Your task to perform on an android device: Open battery settings Image 0: 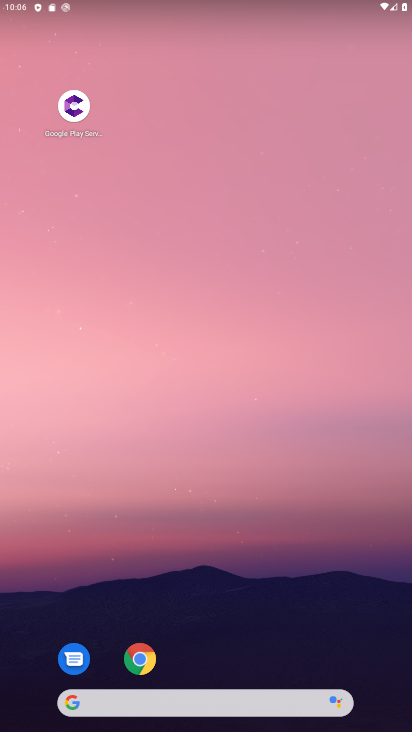
Step 0: drag from (222, 534) to (205, 95)
Your task to perform on an android device: Open battery settings Image 1: 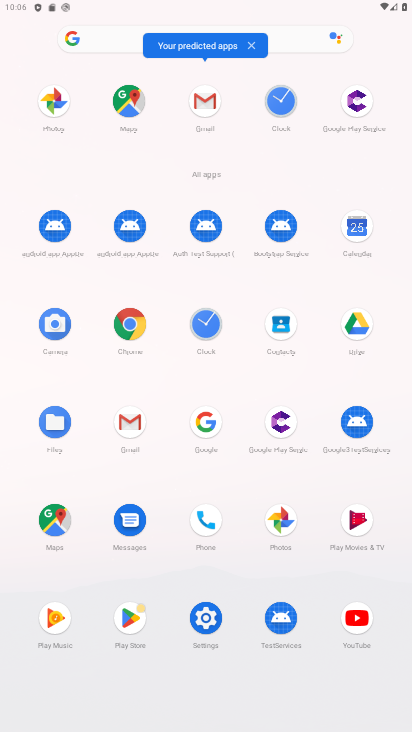
Step 1: click (203, 630)
Your task to perform on an android device: Open battery settings Image 2: 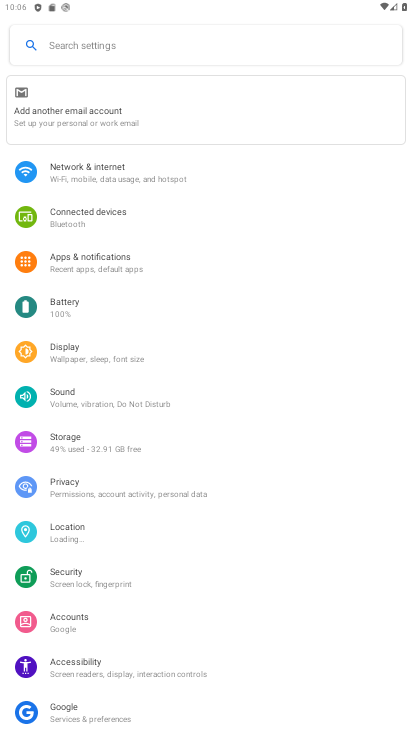
Step 2: click (74, 300)
Your task to perform on an android device: Open battery settings Image 3: 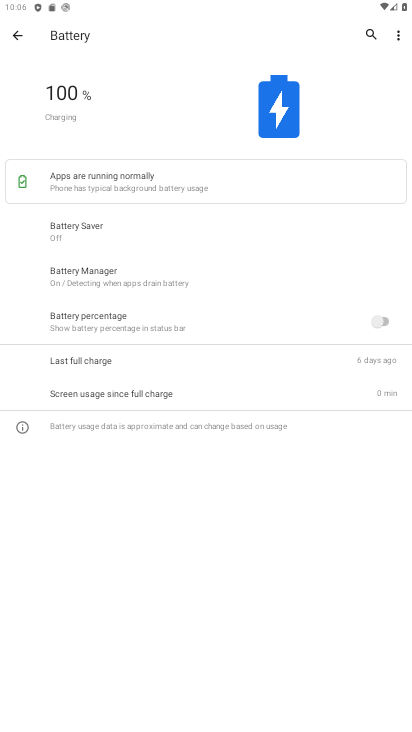
Step 3: task complete